Your task to perform on an android device: Go to location settings Image 0: 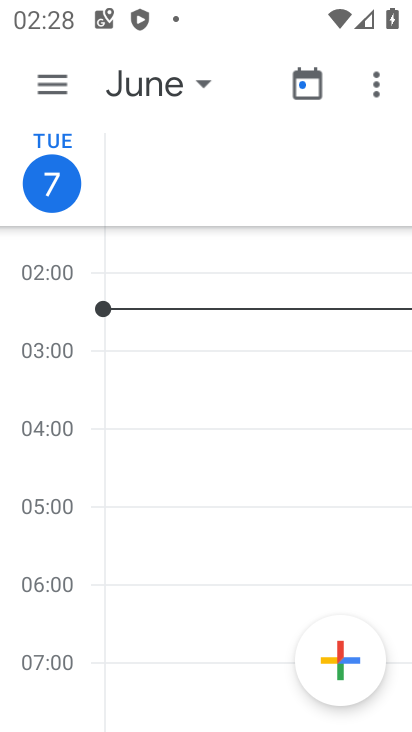
Step 0: press home button
Your task to perform on an android device: Go to location settings Image 1: 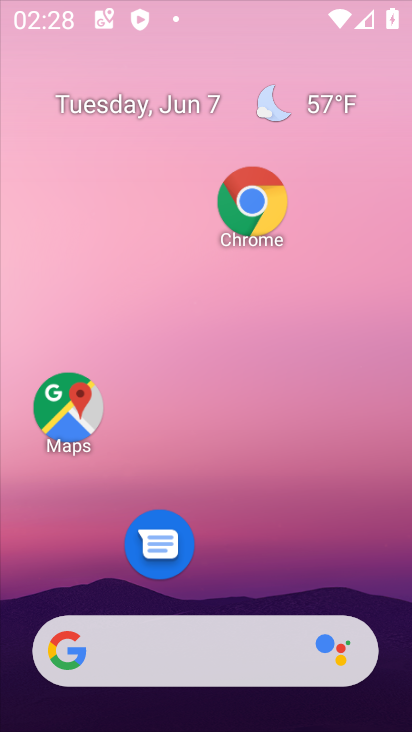
Step 1: drag from (237, 585) to (324, 189)
Your task to perform on an android device: Go to location settings Image 2: 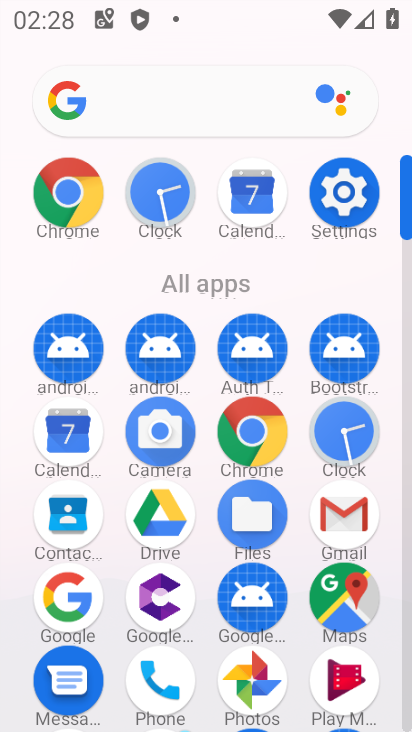
Step 2: click (355, 168)
Your task to perform on an android device: Go to location settings Image 3: 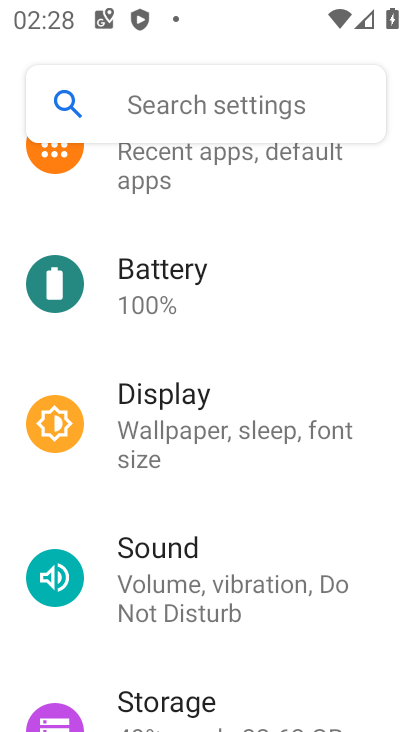
Step 3: drag from (179, 643) to (224, 305)
Your task to perform on an android device: Go to location settings Image 4: 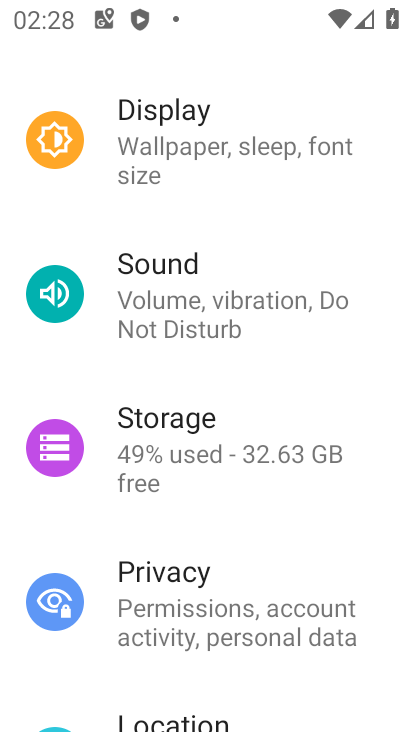
Step 4: drag from (188, 637) to (230, 365)
Your task to perform on an android device: Go to location settings Image 5: 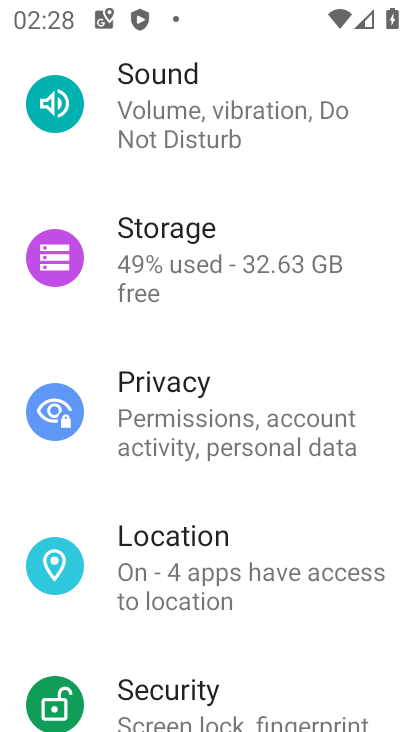
Step 5: click (190, 405)
Your task to perform on an android device: Go to location settings Image 6: 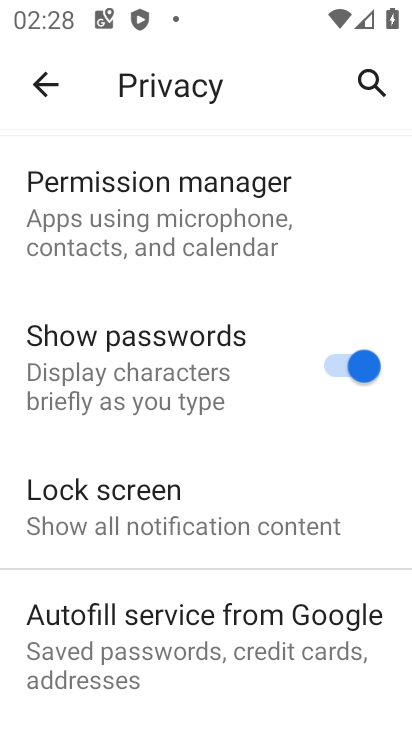
Step 6: press home button
Your task to perform on an android device: Go to location settings Image 7: 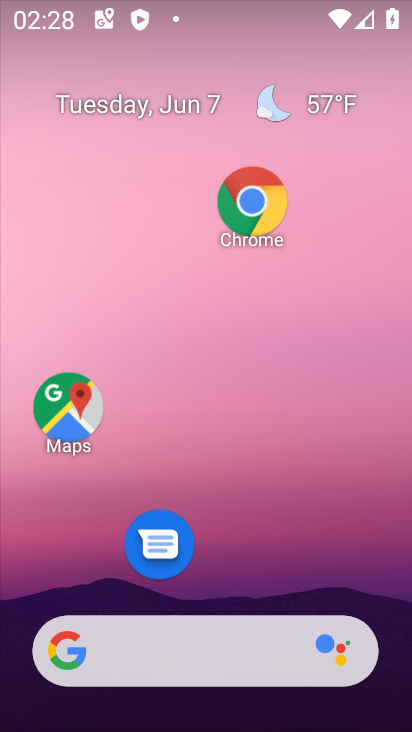
Step 7: drag from (211, 597) to (254, 273)
Your task to perform on an android device: Go to location settings Image 8: 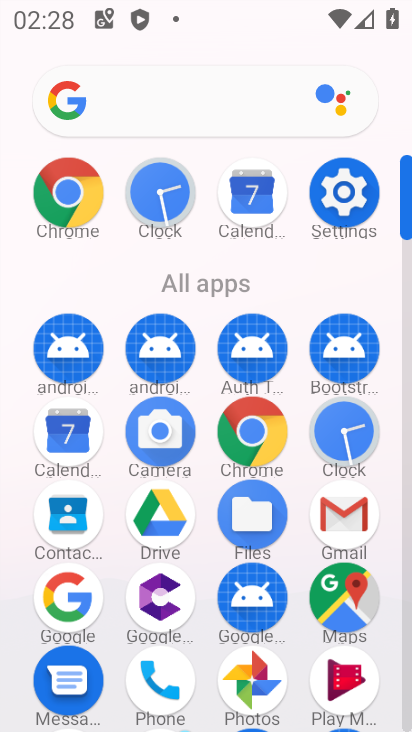
Step 8: click (367, 182)
Your task to perform on an android device: Go to location settings Image 9: 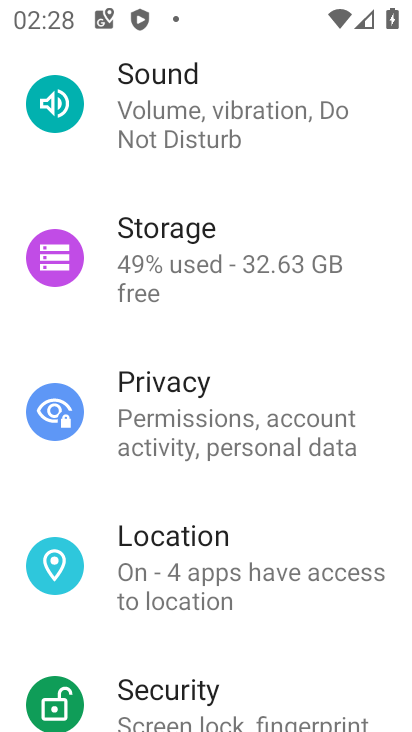
Step 9: click (140, 549)
Your task to perform on an android device: Go to location settings Image 10: 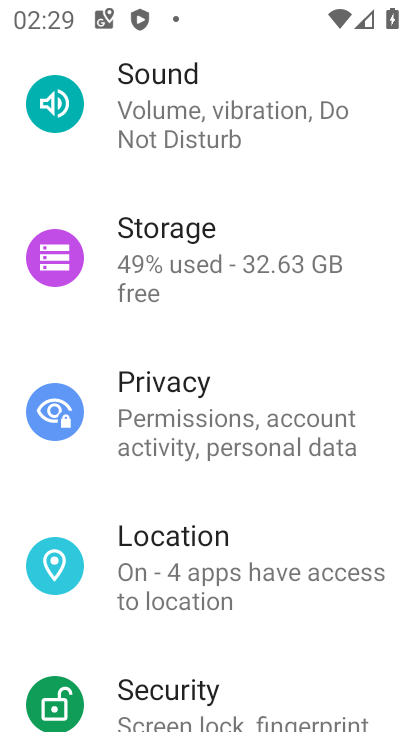
Step 10: click (275, 555)
Your task to perform on an android device: Go to location settings Image 11: 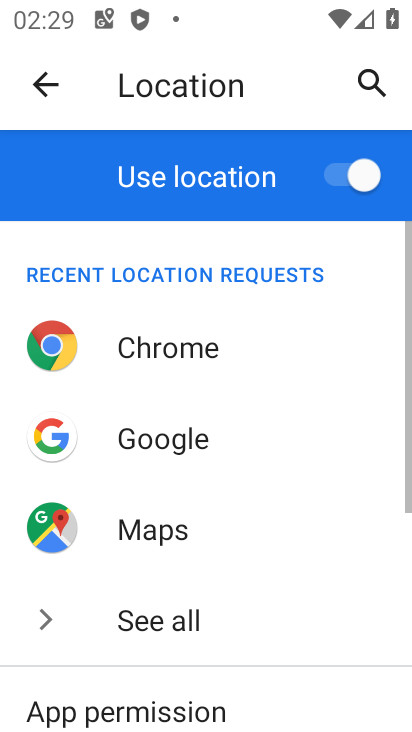
Step 11: task complete